Your task to perform on an android device: Go to display settings Image 0: 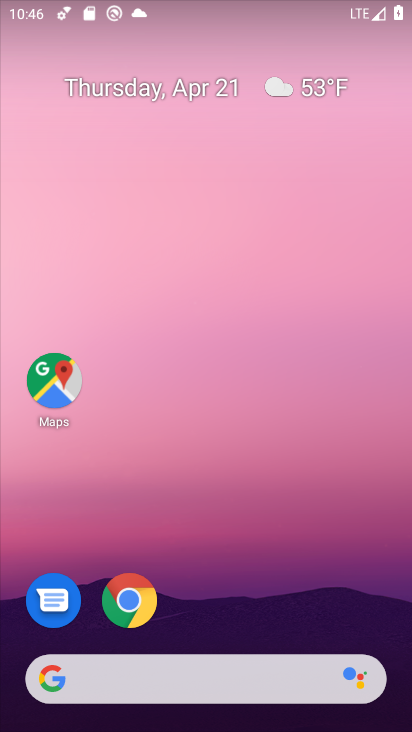
Step 0: drag from (224, 356) to (184, 114)
Your task to perform on an android device: Go to display settings Image 1: 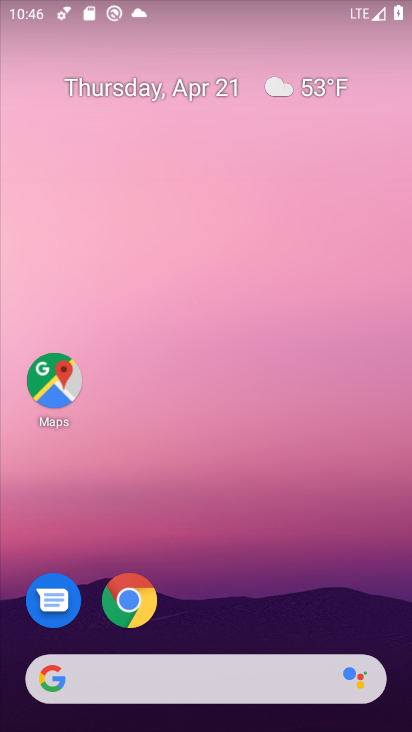
Step 1: drag from (248, 609) to (201, 29)
Your task to perform on an android device: Go to display settings Image 2: 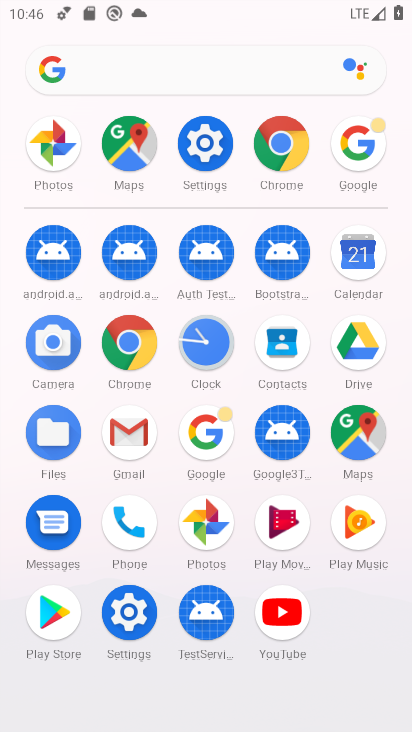
Step 2: click (200, 143)
Your task to perform on an android device: Go to display settings Image 3: 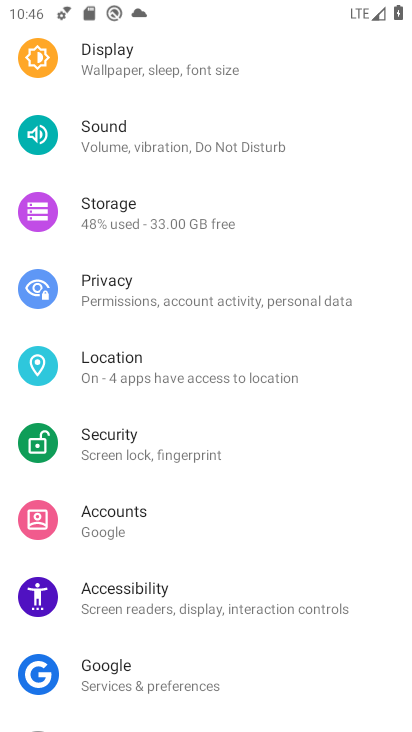
Step 3: click (156, 65)
Your task to perform on an android device: Go to display settings Image 4: 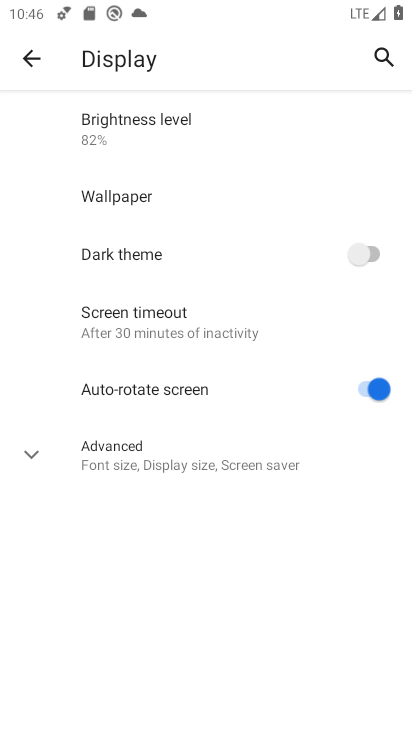
Step 4: task complete